Your task to perform on an android device: Toggle the flashlight Image 0: 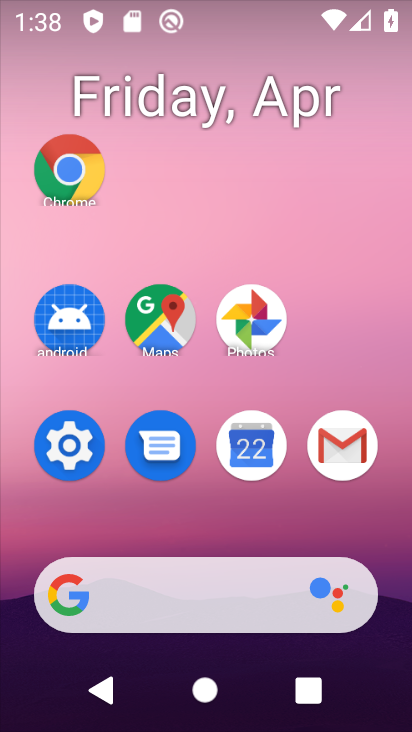
Step 0: click (71, 470)
Your task to perform on an android device: Toggle the flashlight Image 1: 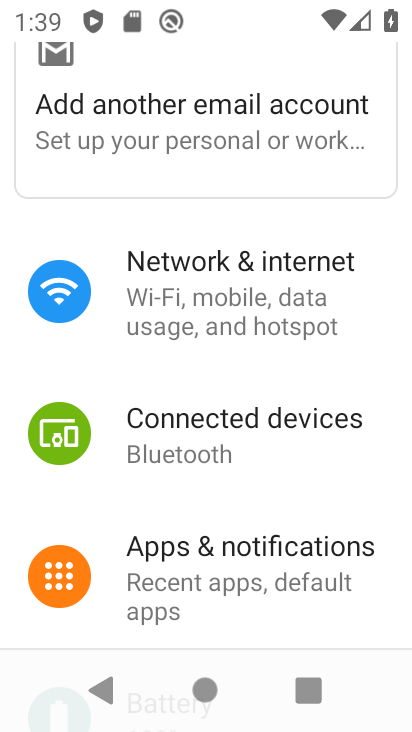
Step 1: click (227, 547)
Your task to perform on an android device: Toggle the flashlight Image 2: 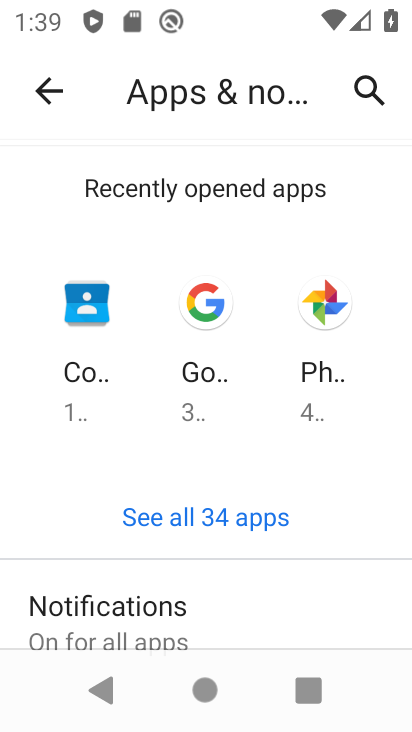
Step 2: task complete